Your task to perform on an android device: open chrome and create a bookmark for the current page Image 0: 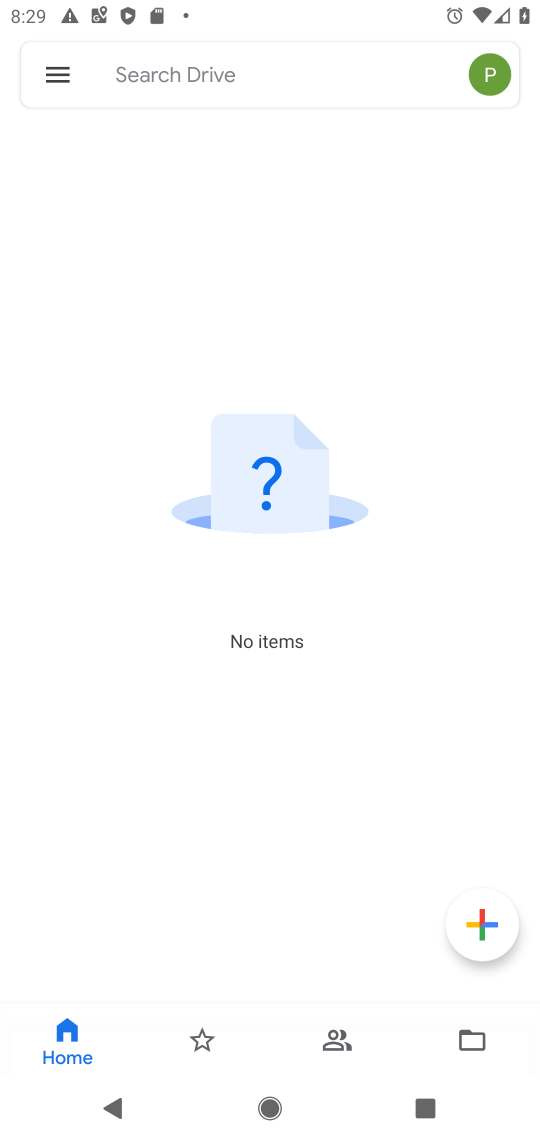
Step 0: press home button
Your task to perform on an android device: open chrome and create a bookmark for the current page Image 1: 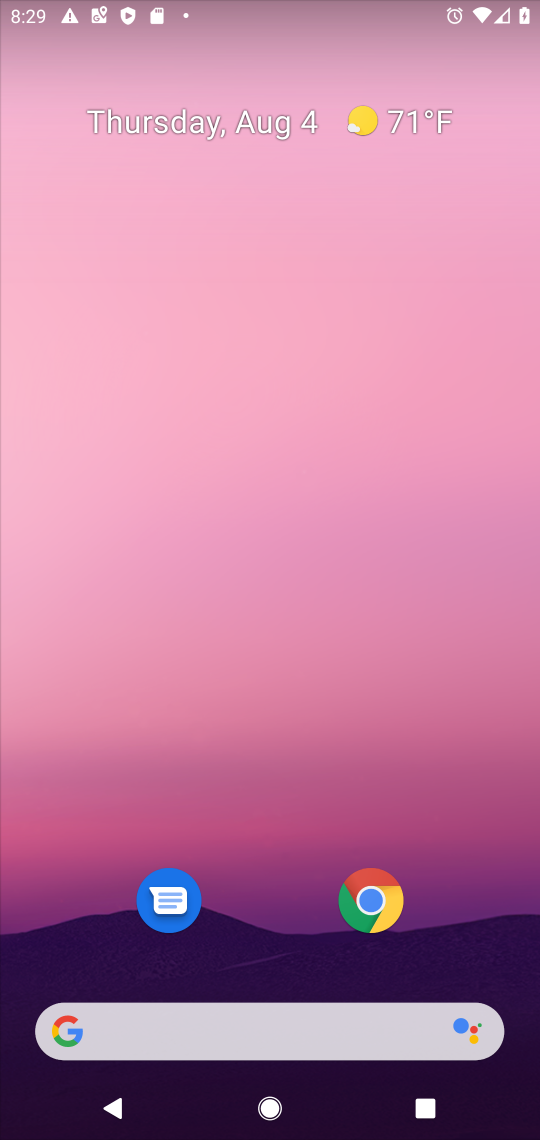
Step 1: click (373, 899)
Your task to perform on an android device: open chrome and create a bookmark for the current page Image 2: 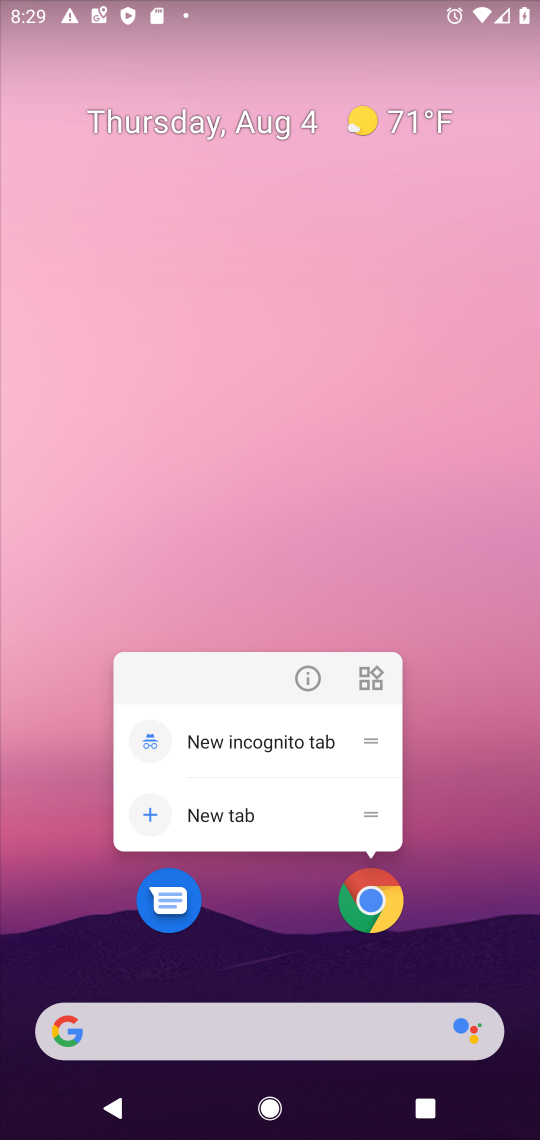
Step 2: click (367, 902)
Your task to perform on an android device: open chrome and create a bookmark for the current page Image 3: 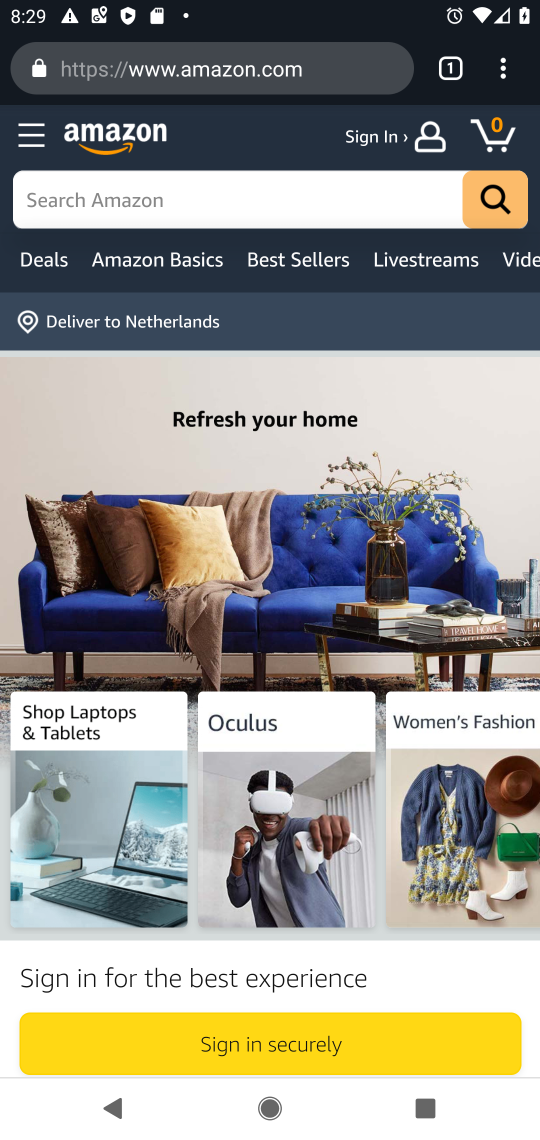
Step 3: task complete